Your task to perform on an android device: turn off sleep mode Image 0: 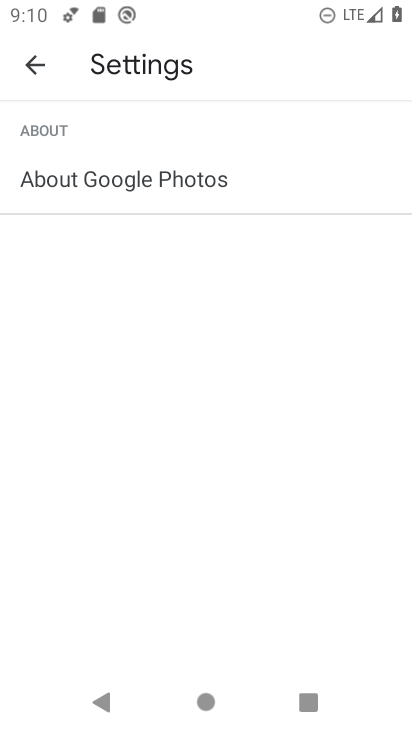
Step 0: press back button
Your task to perform on an android device: turn off sleep mode Image 1: 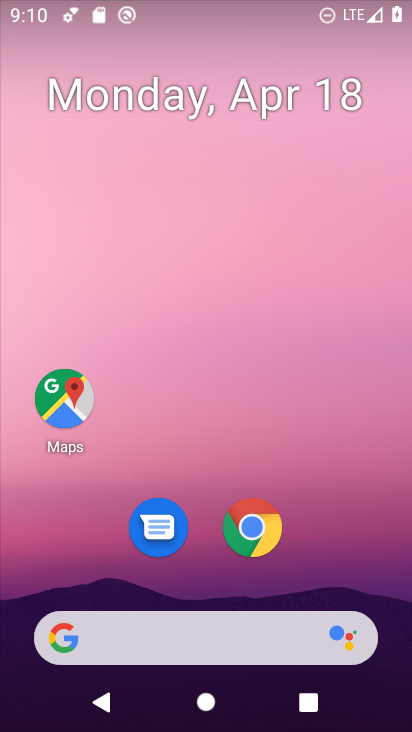
Step 1: drag from (328, 482) to (119, 0)
Your task to perform on an android device: turn off sleep mode Image 2: 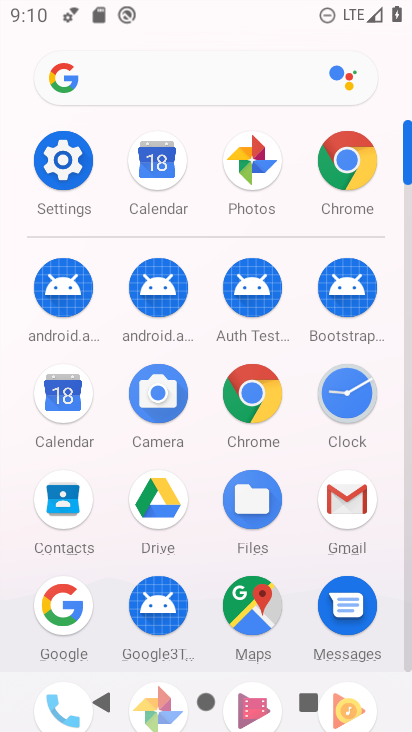
Step 2: click (60, 157)
Your task to perform on an android device: turn off sleep mode Image 3: 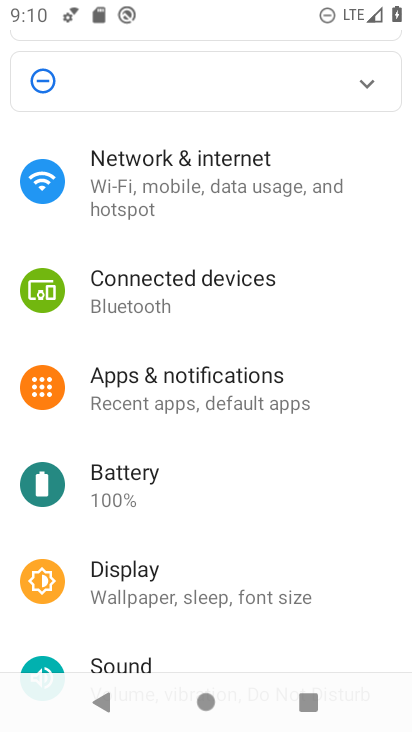
Step 3: click (274, 181)
Your task to perform on an android device: turn off sleep mode Image 4: 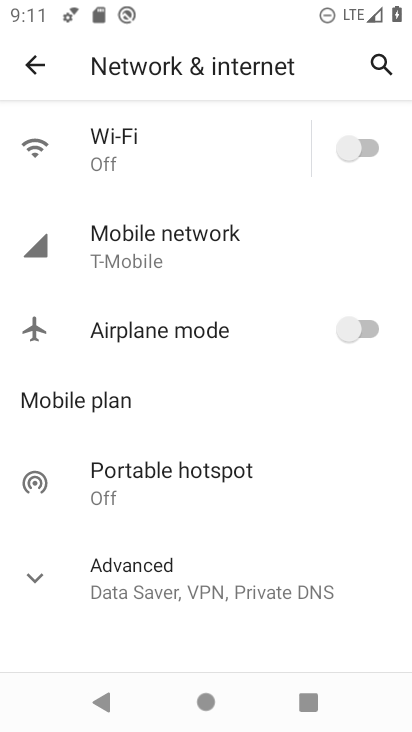
Step 4: click (40, 573)
Your task to perform on an android device: turn off sleep mode Image 5: 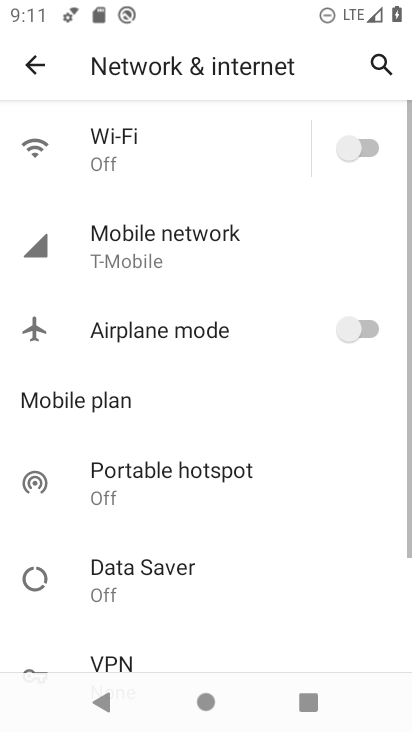
Step 5: drag from (174, 453) to (172, 194)
Your task to perform on an android device: turn off sleep mode Image 6: 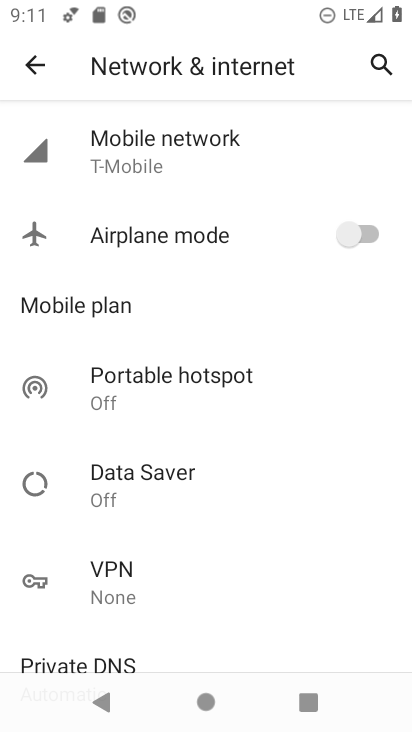
Step 6: drag from (172, 185) to (176, 442)
Your task to perform on an android device: turn off sleep mode Image 7: 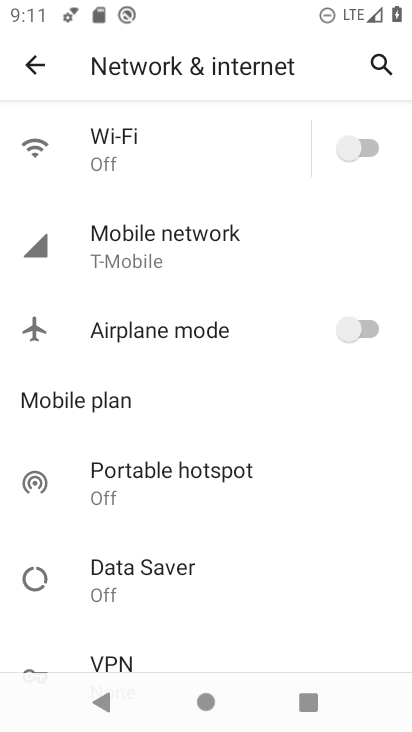
Step 7: click (30, 52)
Your task to perform on an android device: turn off sleep mode Image 8: 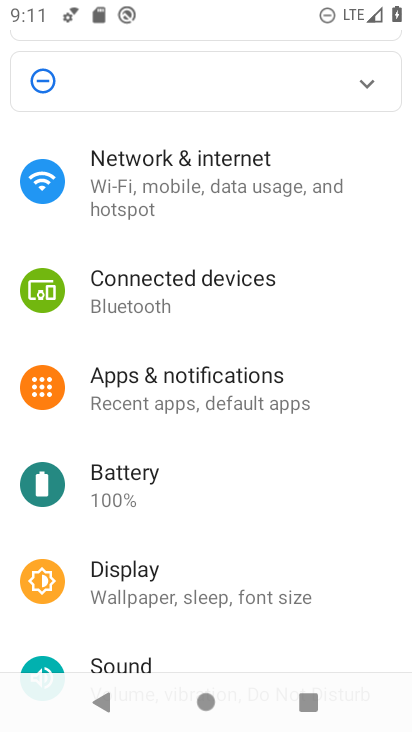
Step 8: drag from (299, 441) to (288, 171)
Your task to perform on an android device: turn off sleep mode Image 9: 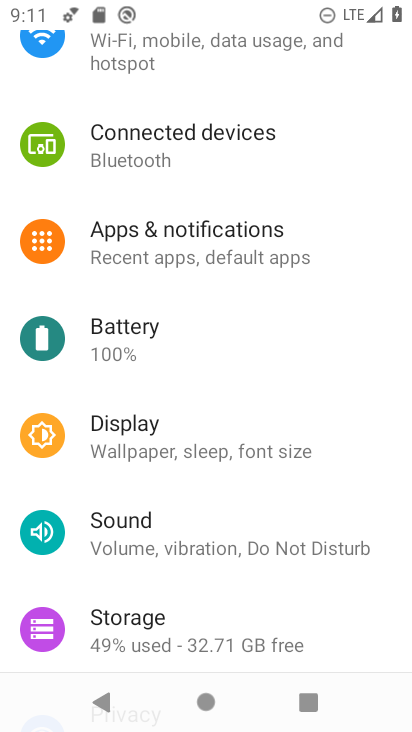
Step 9: click (208, 428)
Your task to perform on an android device: turn off sleep mode Image 10: 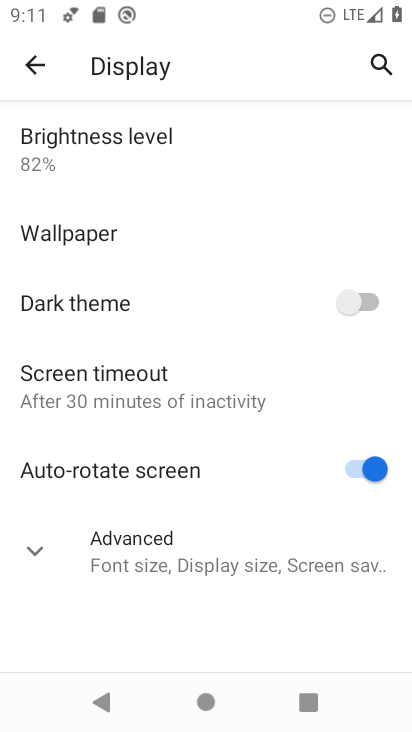
Step 10: click (43, 551)
Your task to perform on an android device: turn off sleep mode Image 11: 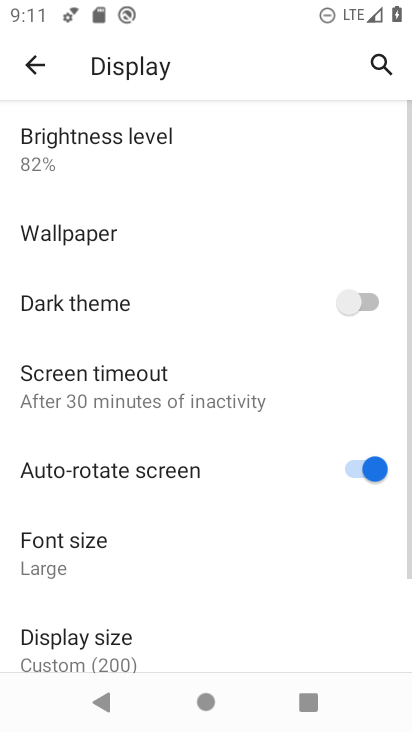
Step 11: task complete